Your task to perform on an android device: allow cookies in the chrome app Image 0: 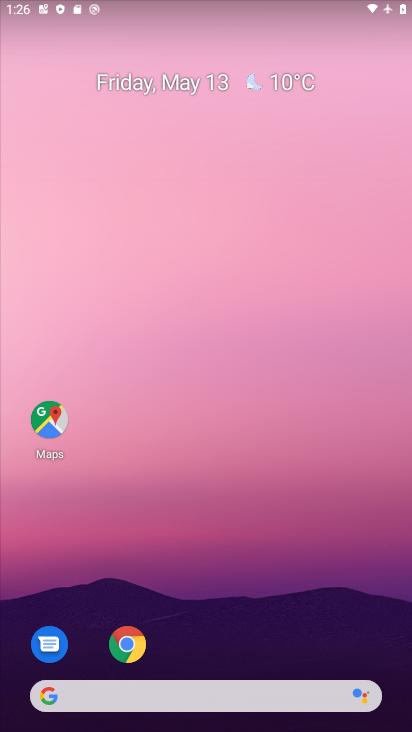
Step 0: click (126, 640)
Your task to perform on an android device: allow cookies in the chrome app Image 1: 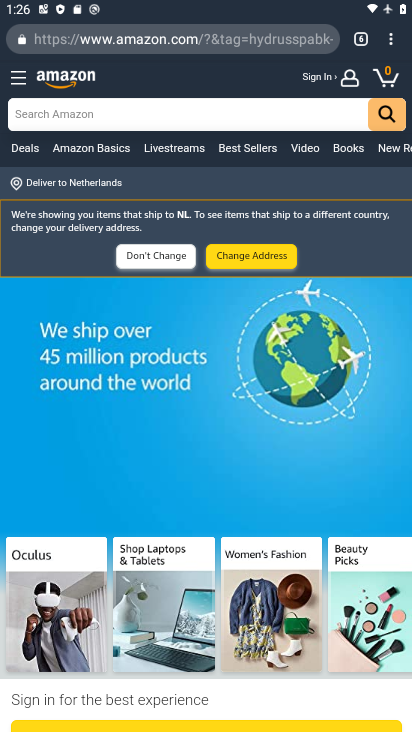
Step 1: click (390, 43)
Your task to perform on an android device: allow cookies in the chrome app Image 2: 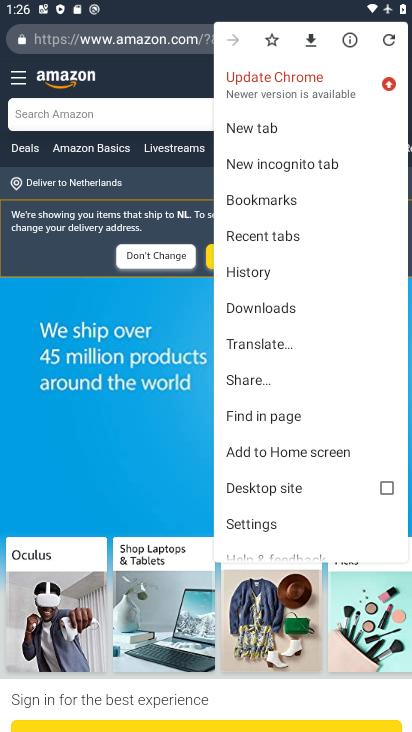
Step 2: click (245, 521)
Your task to perform on an android device: allow cookies in the chrome app Image 3: 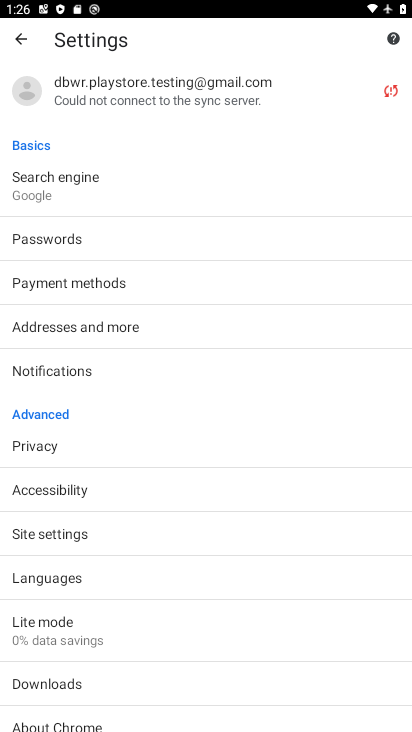
Step 3: click (67, 532)
Your task to perform on an android device: allow cookies in the chrome app Image 4: 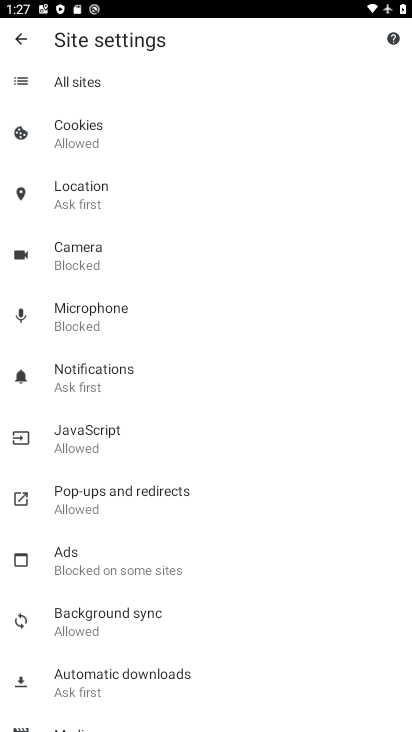
Step 4: click (82, 125)
Your task to perform on an android device: allow cookies in the chrome app Image 5: 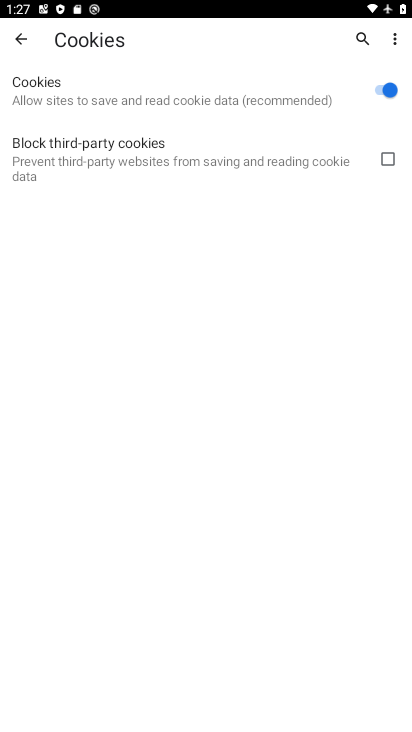
Step 5: task complete